Your task to perform on an android device: Go to eBay Image 0: 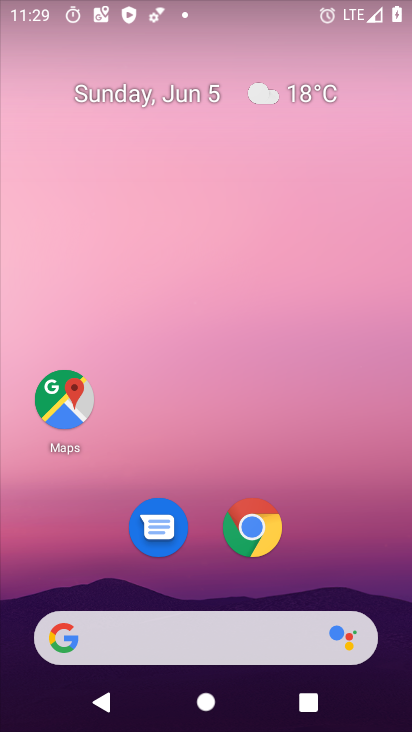
Step 0: click (258, 543)
Your task to perform on an android device: Go to eBay Image 1: 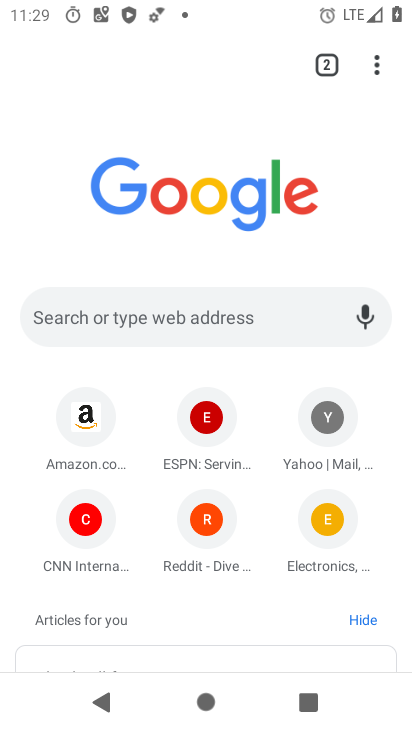
Step 1: click (324, 535)
Your task to perform on an android device: Go to eBay Image 2: 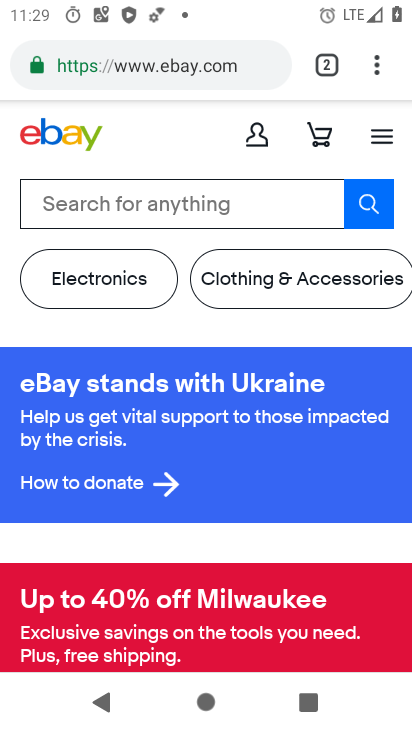
Step 2: task complete